Your task to perform on an android device: Open Youtube and go to "Your channel" Image 0: 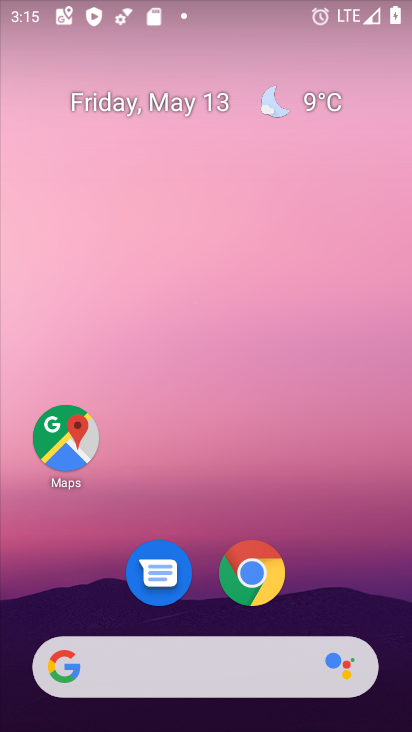
Step 0: drag from (341, 571) to (281, 96)
Your task to perform on an android device: Open Youtube and go to "Your channel" Image 1: 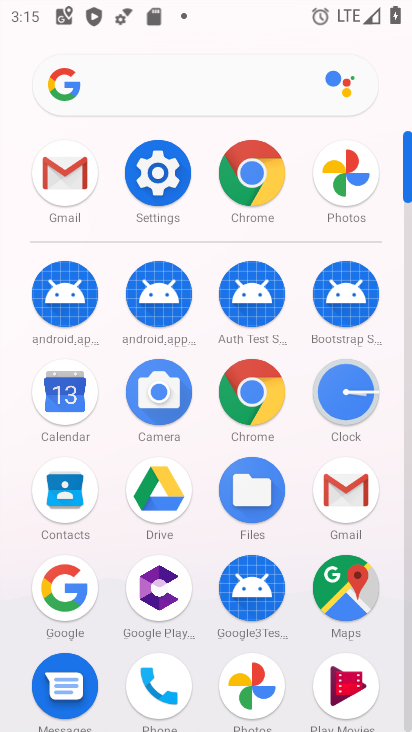
Step 1: drag from (297, 523) to (270, 155)
Your task to perform on an android device: Open Youtube and go to "Your channel" Image 2: 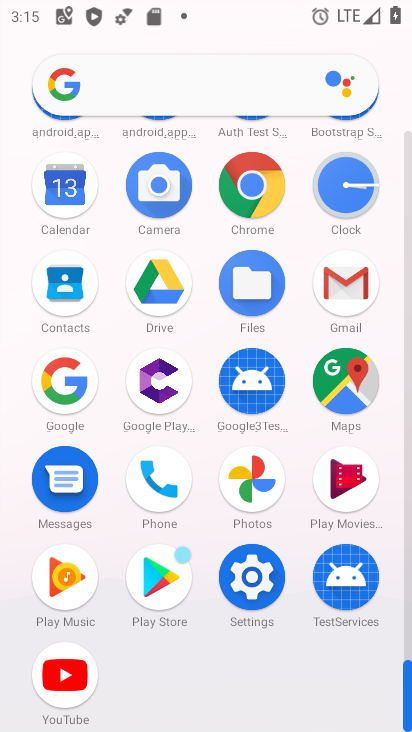
Step 2: click (66, 673)
Your task to perform on an android device: Open Youtube and go to "Your channel" Image 3: 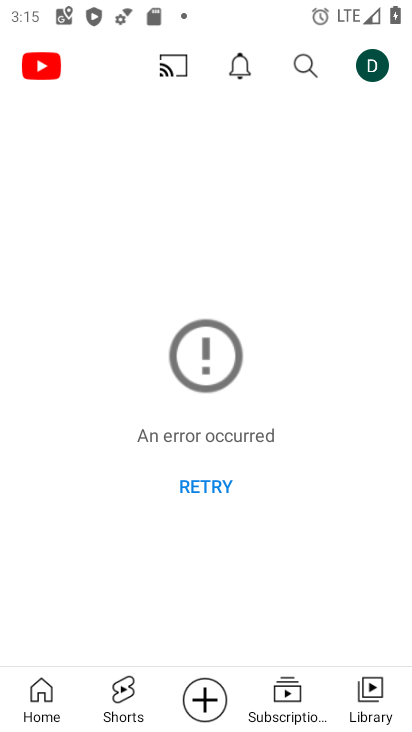
Step 3: click (369, 72)
Your task to perform on an android device: Open Youtube and go to "Your channel" Image 4: 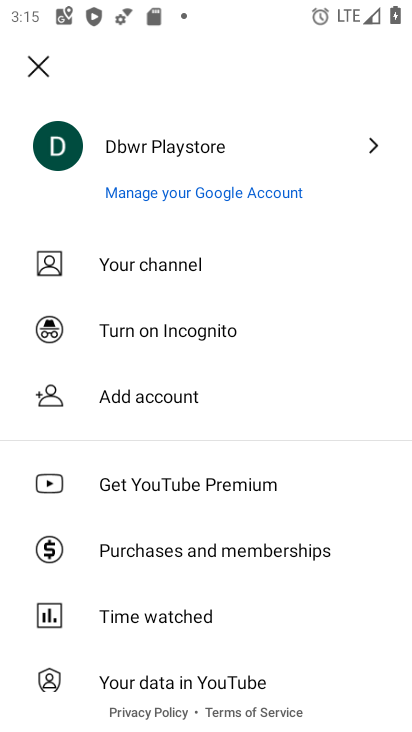
Step 4: click (160, 251)
Your task to perform on an android device: Open Youtube and go to "Your channel" Image 5: 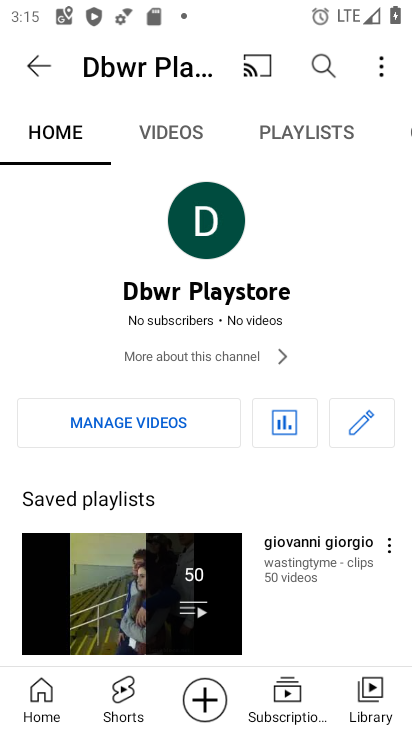
Step 5: task complete